Your task to perform on an android device: allow notifications from all sites in the chrome app Image 0: 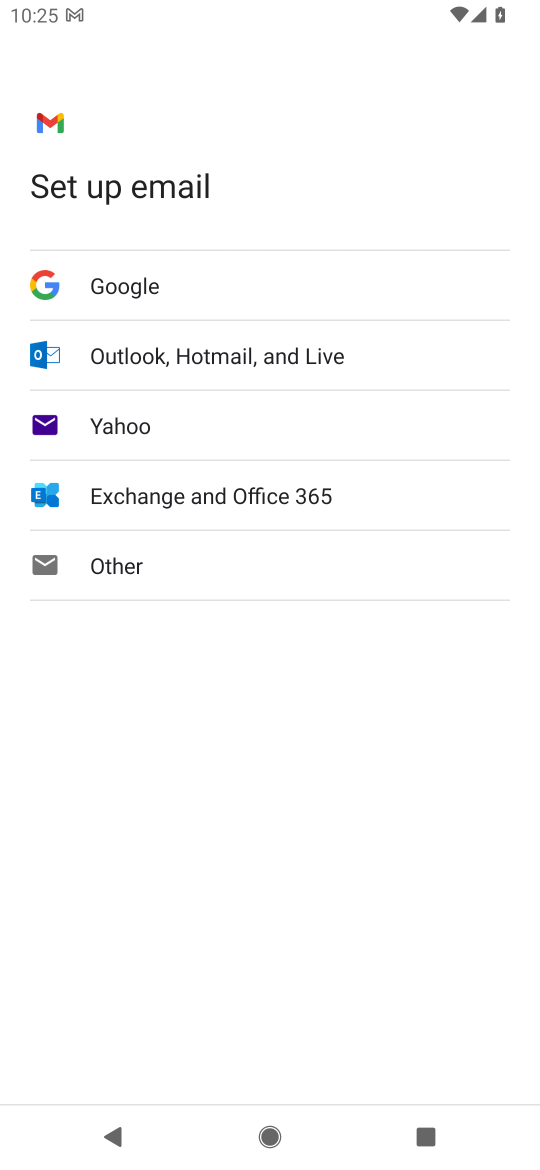
Step 0: press home button
Your task to perform on an android device: allow notifications from all sites in the chrome app Image 1: 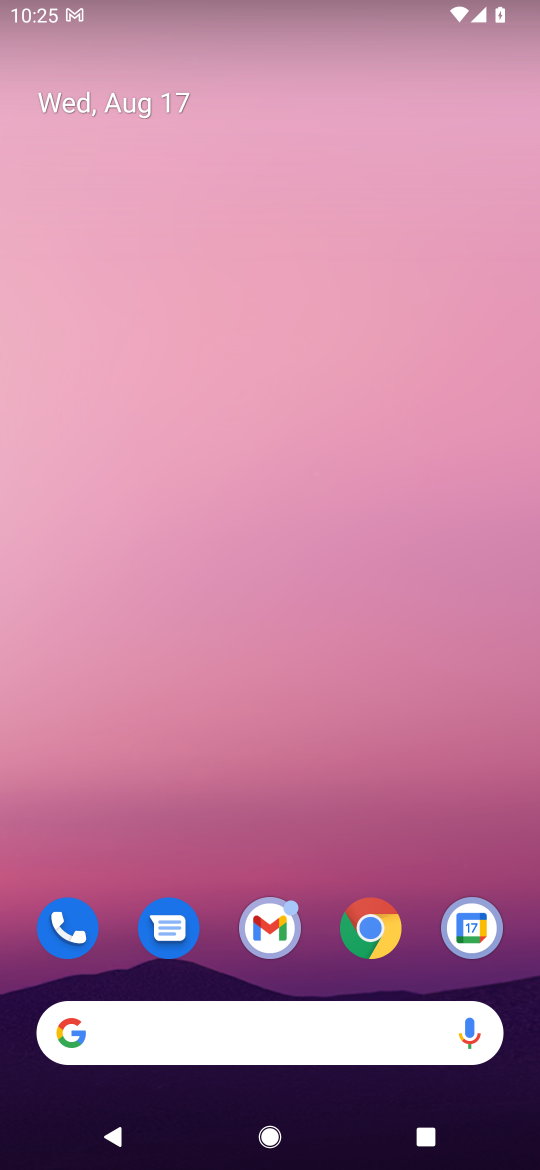
Step 1: click (373, 923)
Your task to perform on an android device: allow notifications from all sites in the chrome app Image 2: 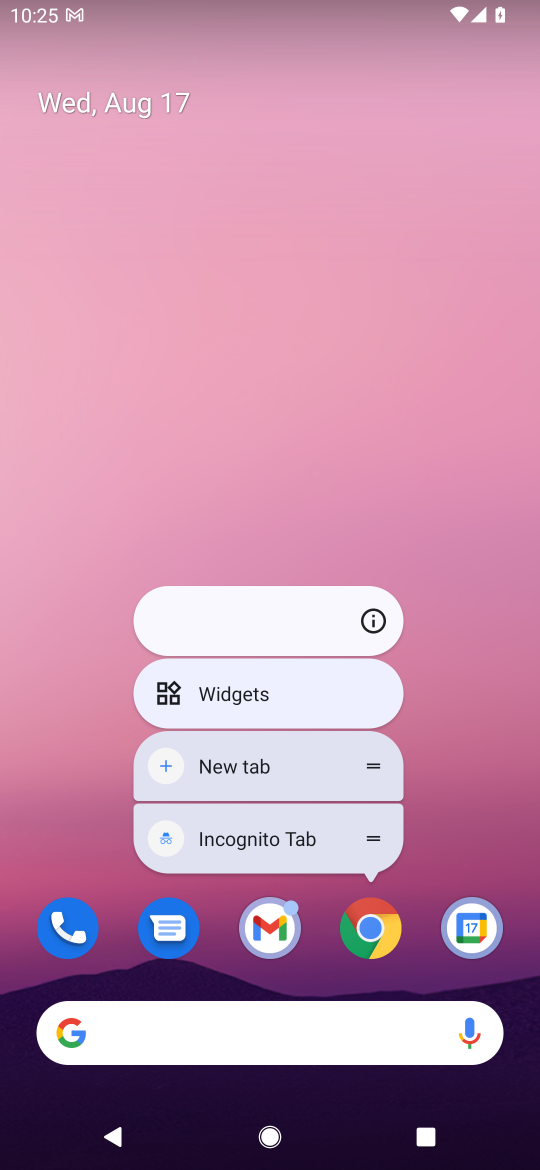
Step 2: click (379, 624)
Your task to perform on an android device: allow notifications from all sites in the chrome app Image 3: 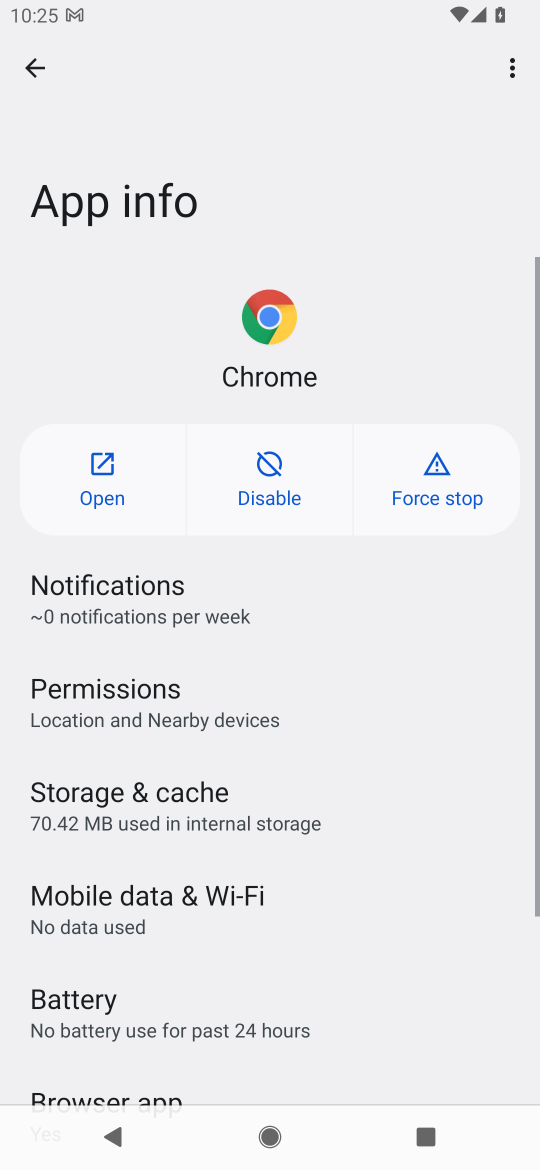
Step 3: click (180, 609)
Your task to perform on an android device: allow notifications from all sites in the chrome app Image 4: 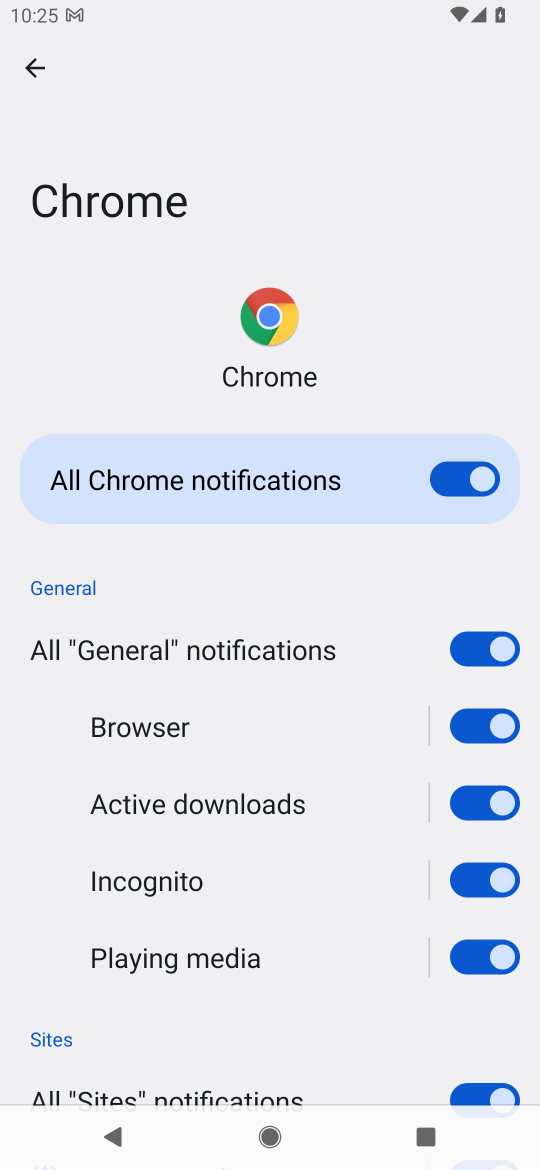
Step 4: task complete